Your task to perform on an android device: Add jbl flip 4 to the cart on bestbuy Image 0: 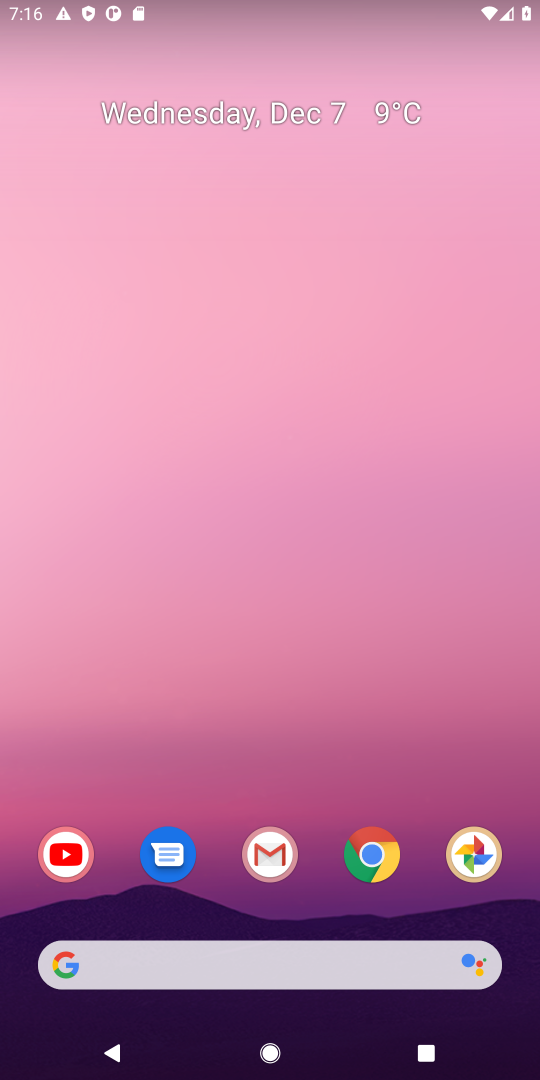
Step 0: click (322, 952)
Your task to perform on an android device: Add jbl flip 4 to the cart on bestbuy Image 1: 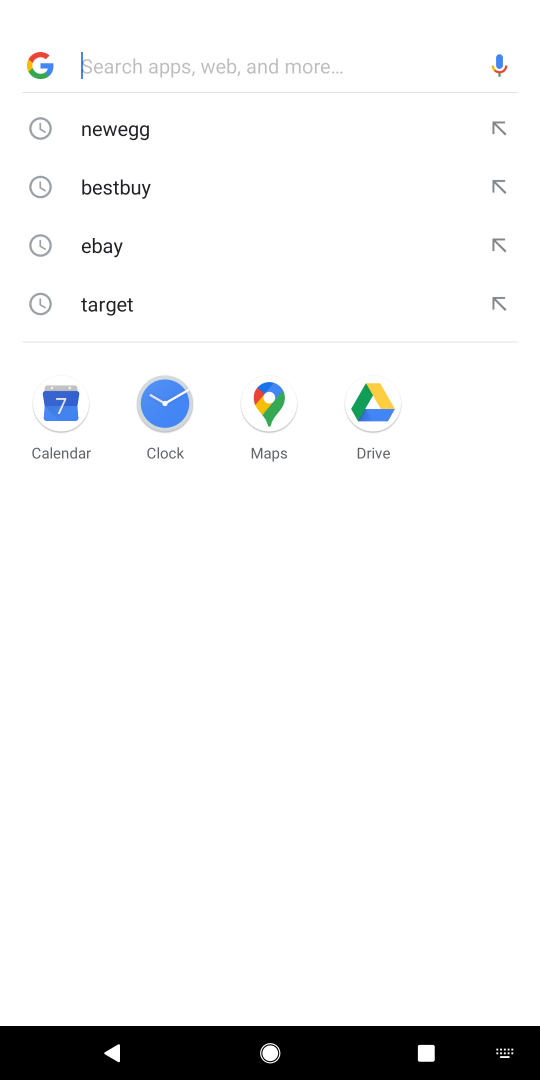
Step 1: type "bestbuy"
Your task to perform on an android device: Add jbl flip 4 to the cart on bestbuy Image 2: 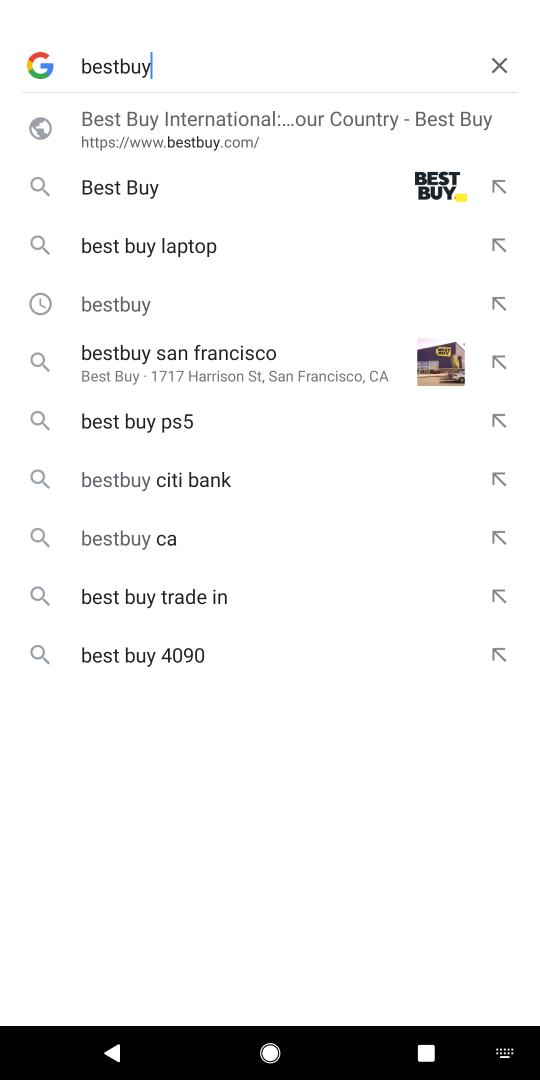
Step 2: click (205, 150)
Your task to perform on an android device: Add jbl flip 4 to the cart on bestbuy Image 3: 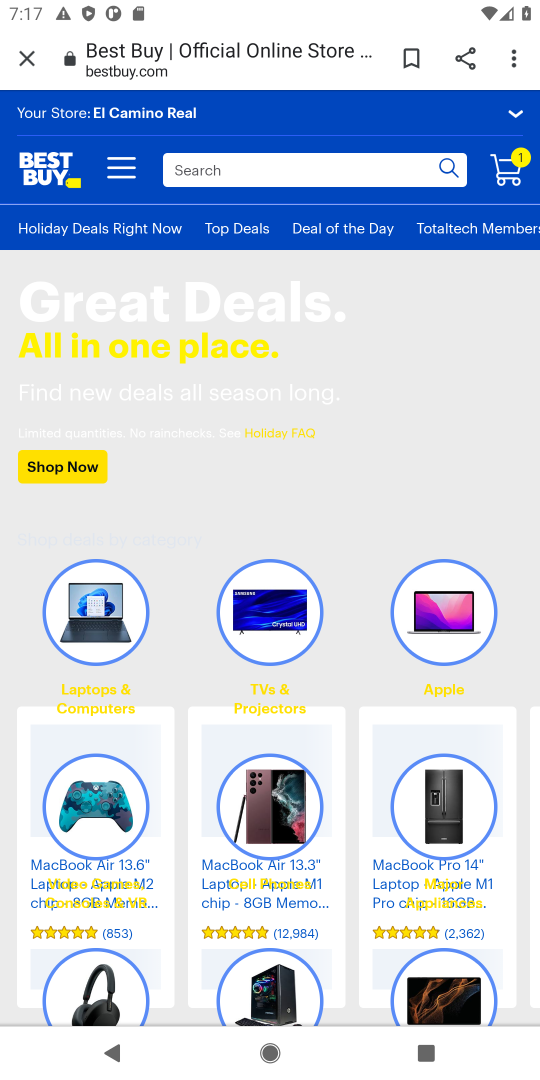
Step 3: click (215, 180)
Your task to perform on an android device: Add jbl flip 4 to the cart on bestbuy Image 4: 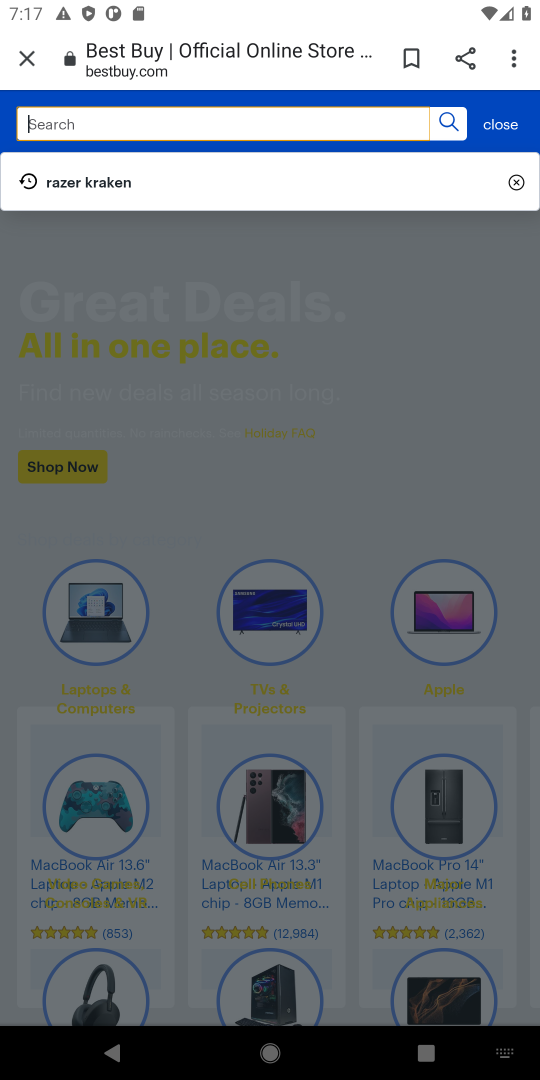
Step 4: type "jbl flip 4"
Your task to perform on an android device: Add jbl flip 4 to the cart on bestbuy Image 5: 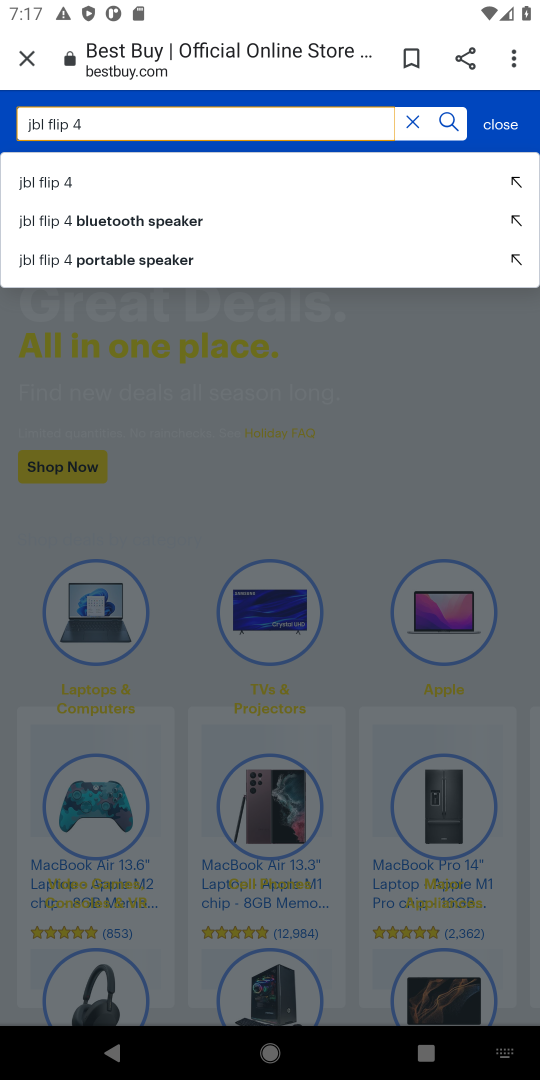
Step 5: click (36, 183)
Your task to perform on an android device: Add jbl flip 4 to the cart on bestbuy Image 6: 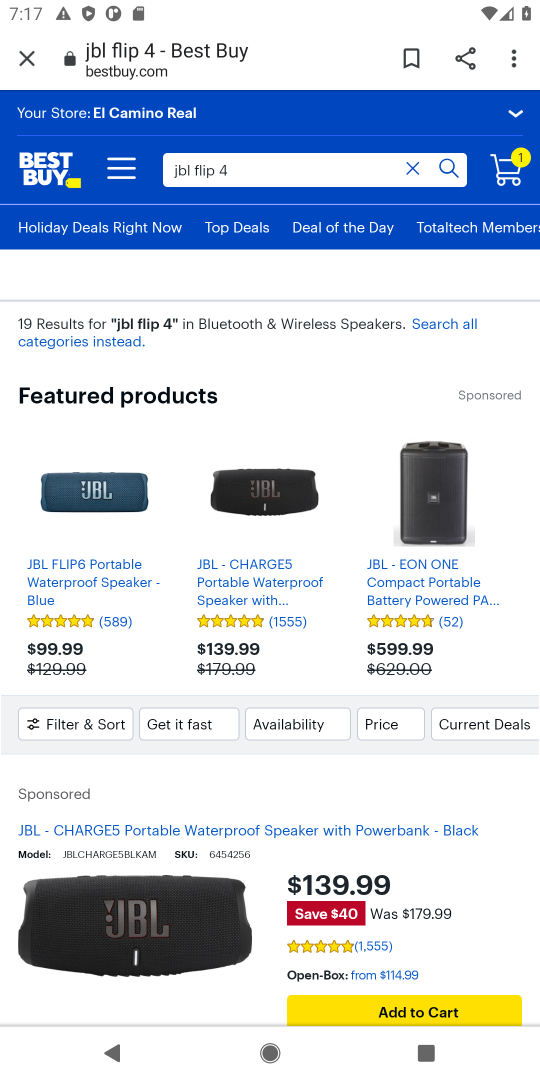
Step 6: click (456, 1011)
Your task to perform on an android device: Add jbl flip 4 to the cart on bestbuy Image 7: 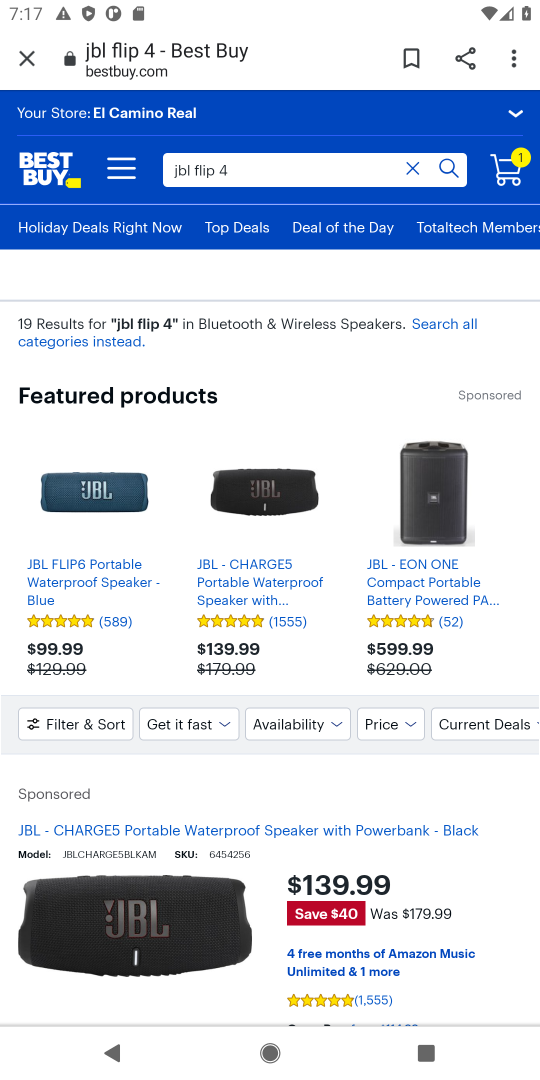
Step 7: task complete